Your task to perform on an android device: change notifications settings Image 0: 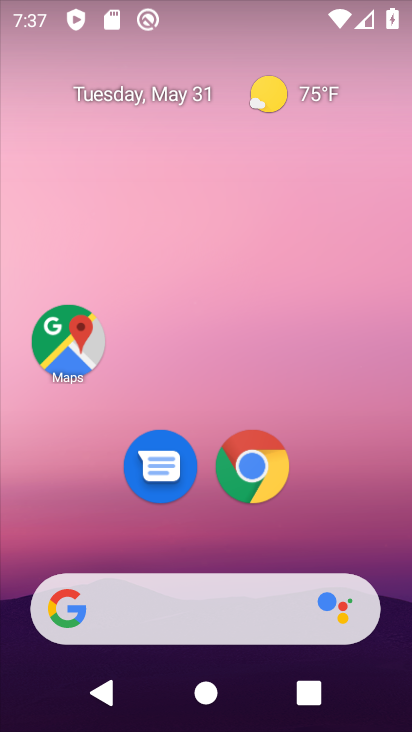
Step 0: drag from (203, 559) to (294, 9)
Your task to perform on an android device: change notifications settings Image 1: 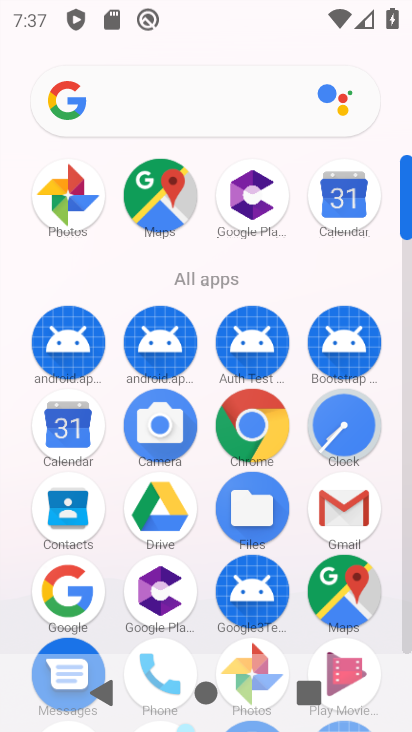
Step 1: drag from (208, 576) to (257, 140)
Your task to perform on an android device: change notifications settings Image 2: 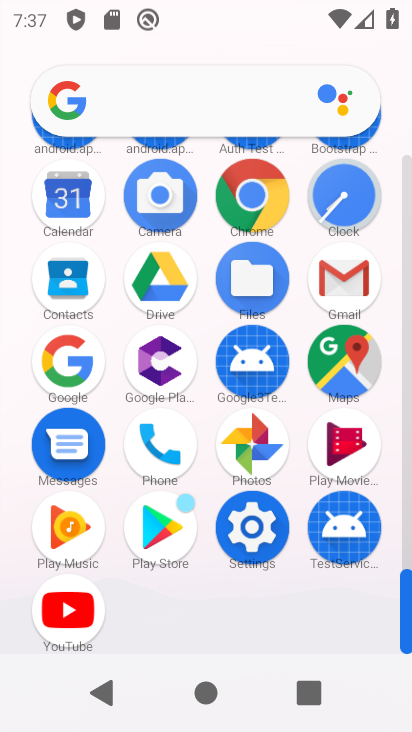
Step 2: click (250, 547)
Your task to perform on an android device: change notifications settings Image 3: 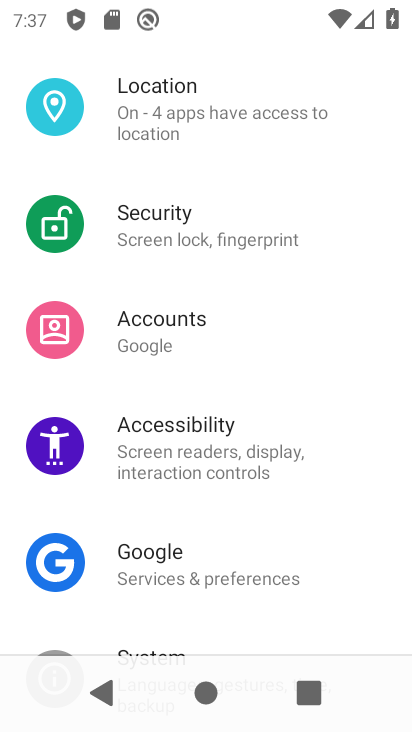
Step 3: drag from (219, 216) to (305, 619)
Your task to perform on an android device: change notifications settings Image 4: 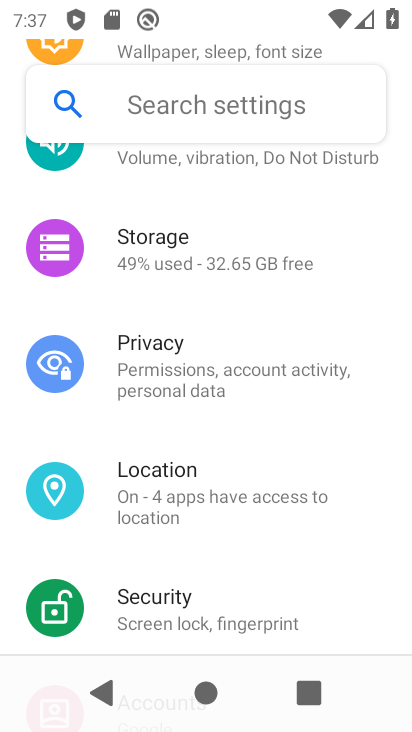
Step 4: drag from (202, 176) to (170, 657)
Your task to perform on an android device: change notifications settings Image 5: 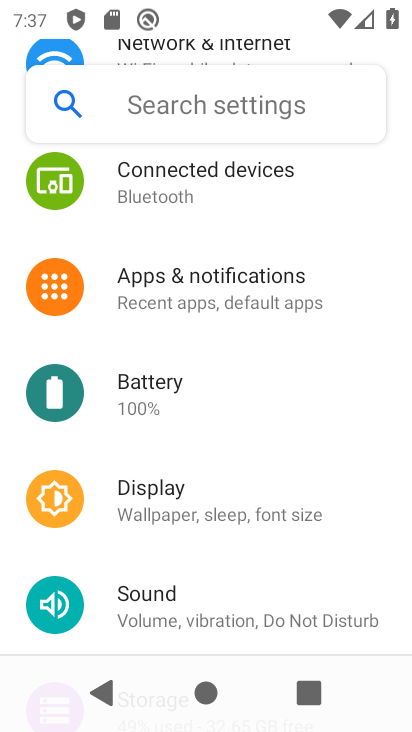
Step 5: click (178, 290)
Your task to perform on an android device: change notifications settings Image 6: 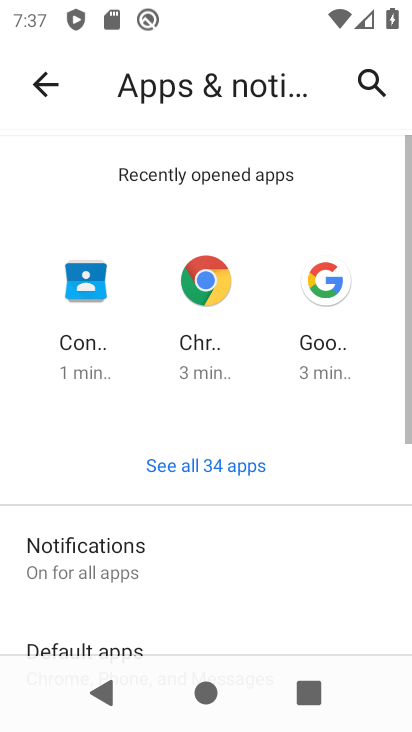
Step 6: click (100, 575)
Your task to perform on an android device: change notifications settings Image 7: 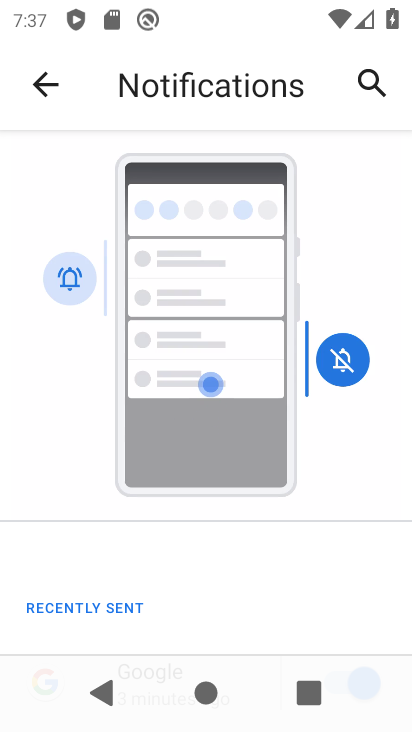
Step 7: drag from (199, 568) to (302, 1)
Your task to perform on an android device: change notifications settings Image 8: 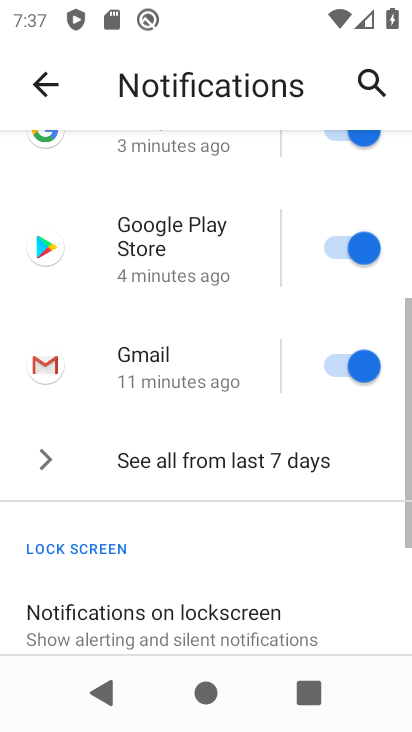
Step 8: drag from (186, 529) to (323, 25)
Your task to perform on an android device: change notifications settings Image 9: 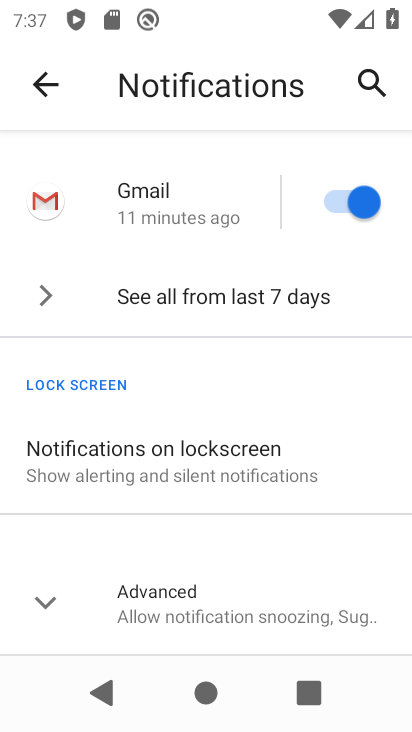
Step 9: drag from (295, 512) to (316, 157)
Your task to perform on an android device: change notifications settings Image 10: 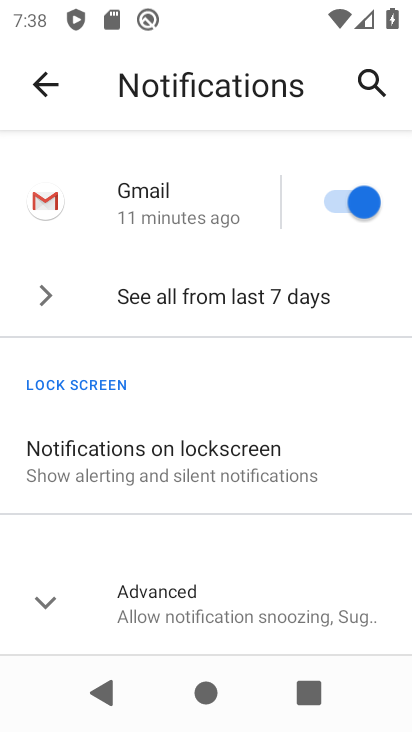
Step 10: click (139, 625)
Your task to perform on an android device: change notifications settings Image 11: 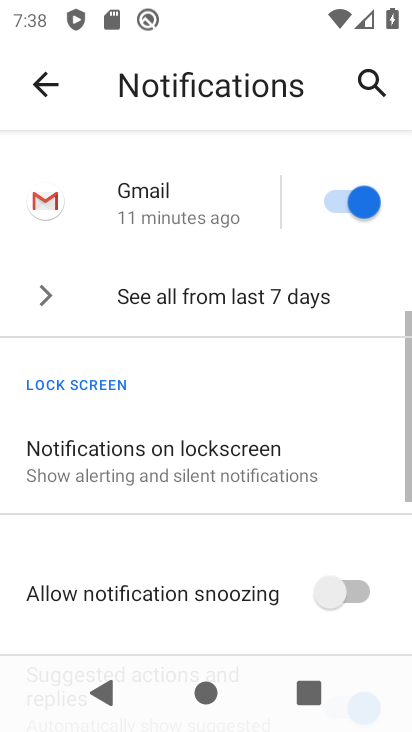
Step 11: drag from (178, 568) to (280, 106)
Your task to perform on an android device: change notifications settings Image 12: 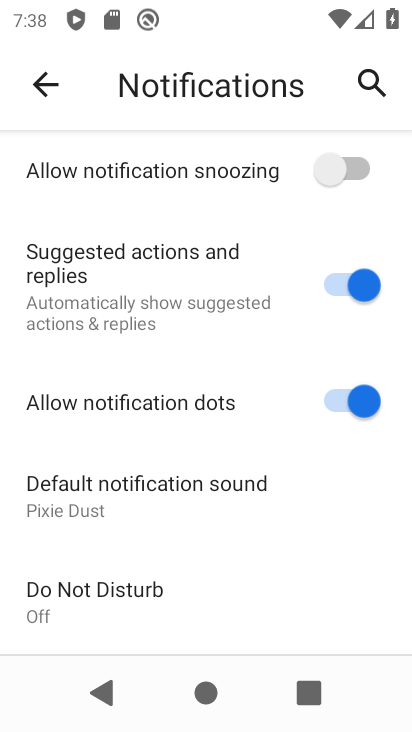
Step 12: click (337, 165)
Your task to perform on an android device: change notifications settings Image 13: 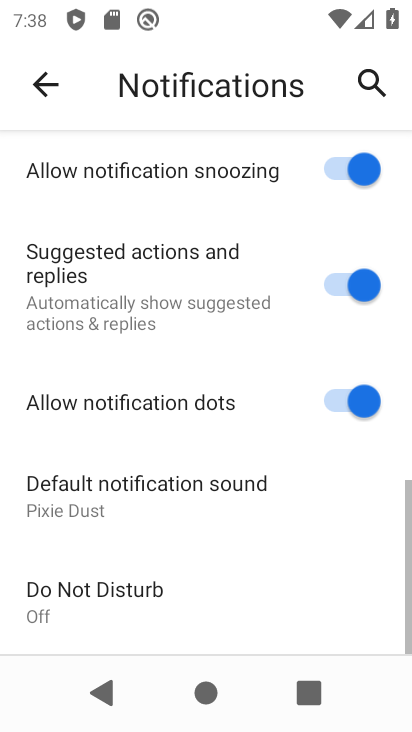
Step 13: task complete